Your task to perform on an android device: change keyboard looks Image 0: 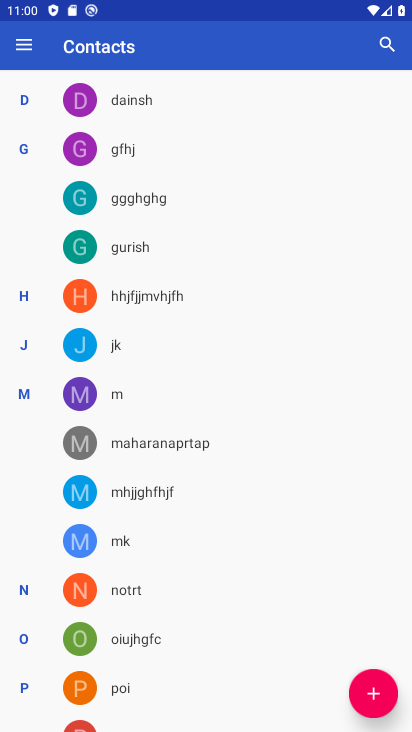
Step 0: press home button
Your task to perform on an android device: change keyboard looks Image 1: 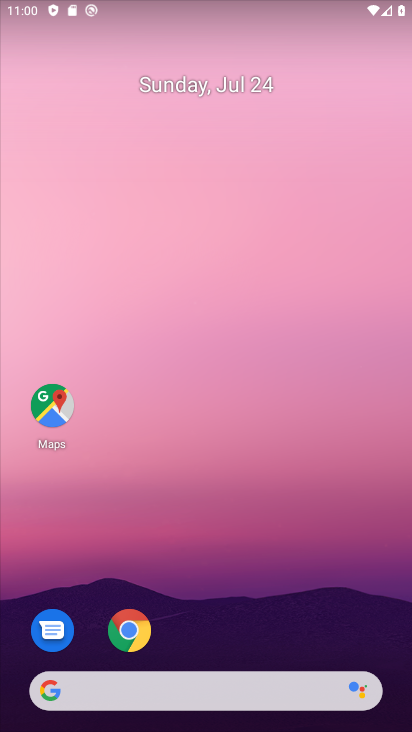
Step 1: drag from (323, 631) to (277, 171)
Your task to perform on an android device: change keyboard looks Image 2: 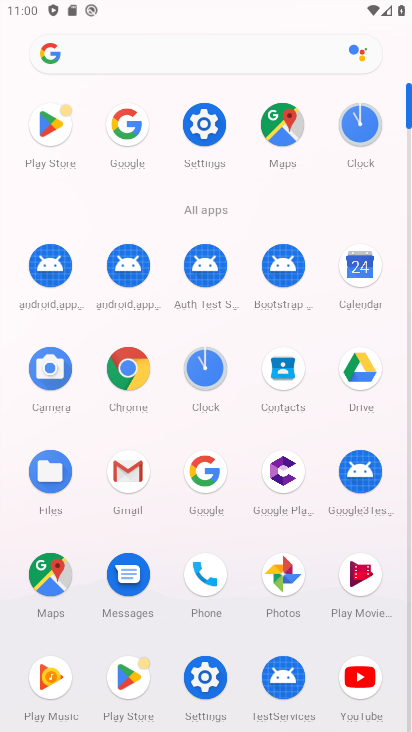
Step 2: click (202, 686)
Your task to perform on an android device: change keyboard looks Image 3: 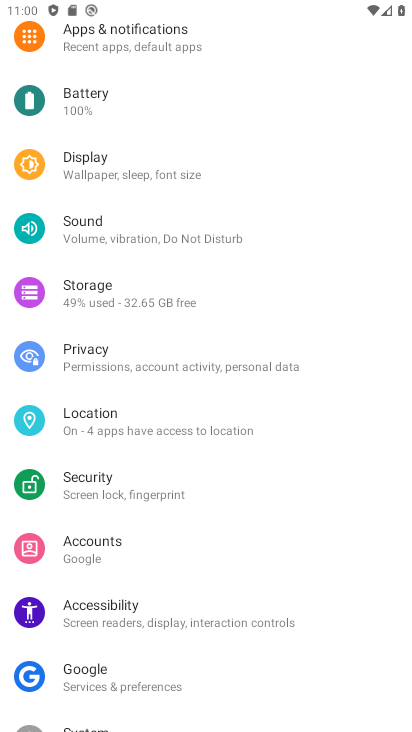
Step 3: drag from (250, 632) to (227, 131)
Your task to perform on an android device: change keyboard looks Image 4: 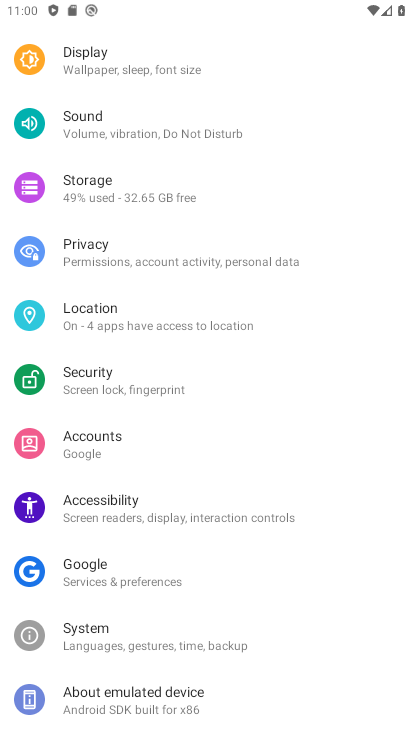
Step 4: click (122, 647)
Your task to perform on an android device: change keyboard looks Image 5: 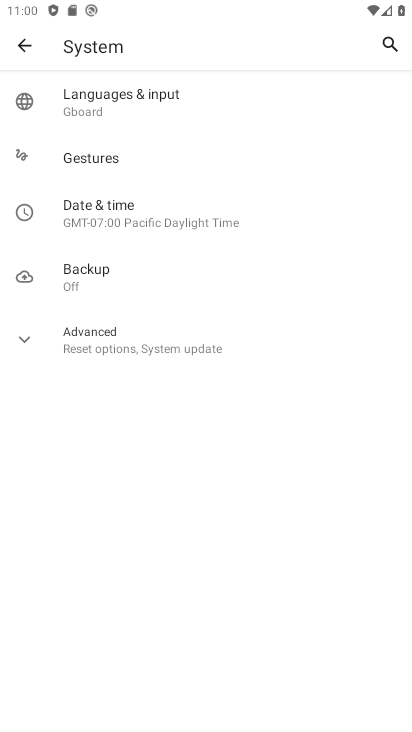
Step 5: click (174, 96)
Your task to perform on an android device: change keyboard looks Image 6: 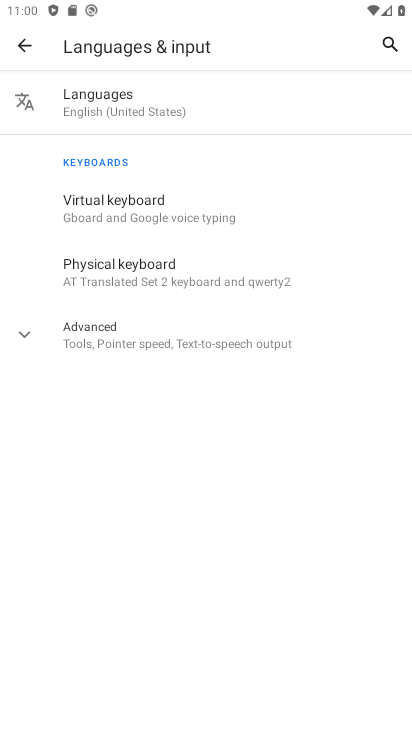
Step 6: click (130, 209)
Your task to perform on an android device: change keyboard looks Image 7: 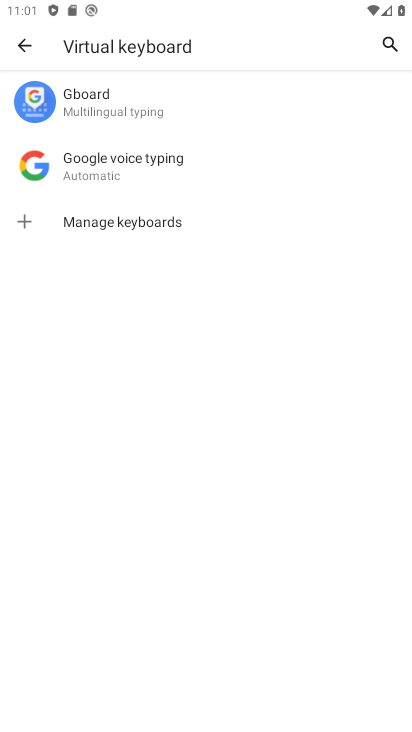
Step 7: click (179, 103)
Your task to perform on an android device: change keyboard looks Image 8: 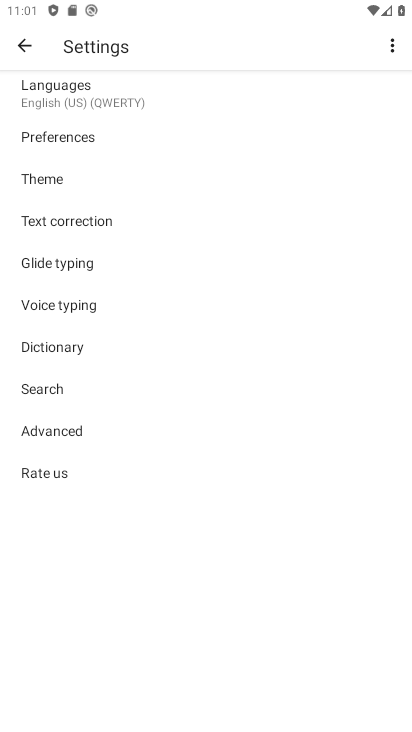
Step 8: click (88, 177)
Your task to perform on an android device: change keyboard looks Image 9: 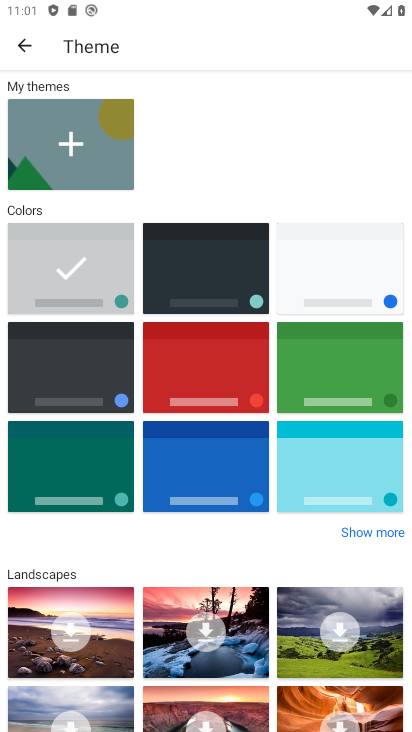
Step 9: click (180, 464)
Your task to perform on an android device: change keyboard looks Image 10: 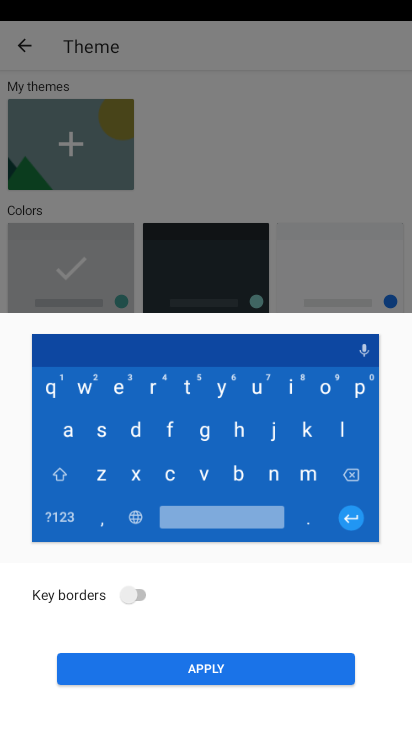
Step 10: click (234, 674)
Your task to perform on an android device: change keyboard looks Image 11: 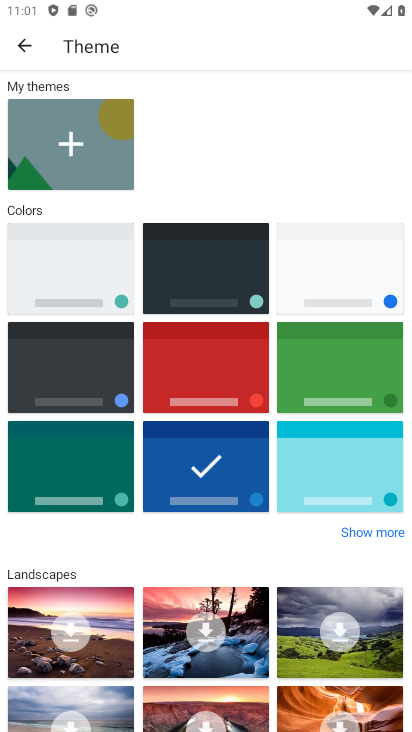
Step 11: task complete